Your task to perform on an android device: add a contact in the contacts app Image 0: 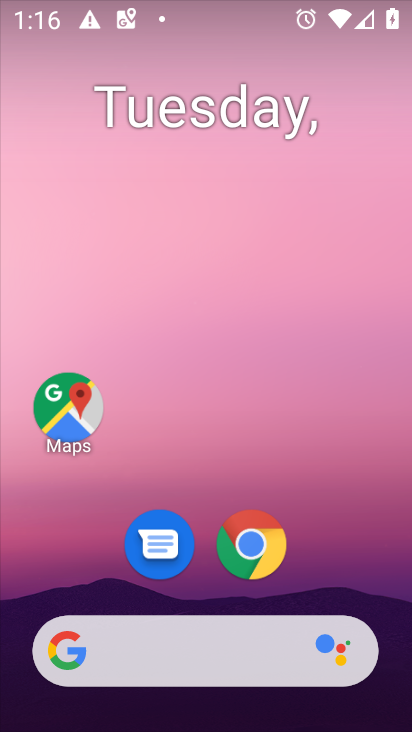
Step 0: drag from (351, 507) to (355, 18)
Your task to perform on an android device: add a contact in the contacts app Image 1: 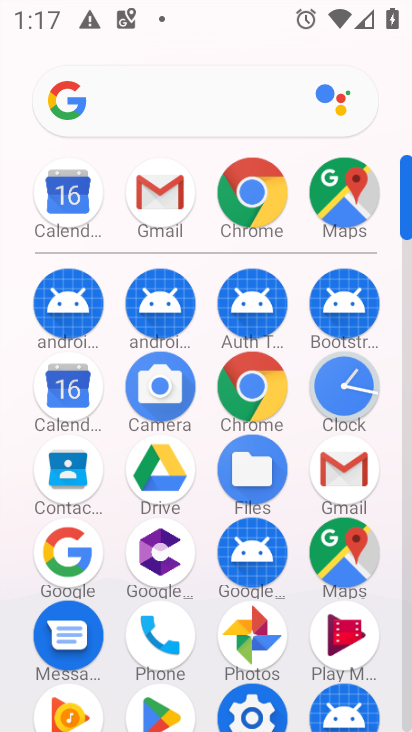
Step 1: click (82, 457)
Your task to perform on an android device: add a contact in the contacts app Image 2: 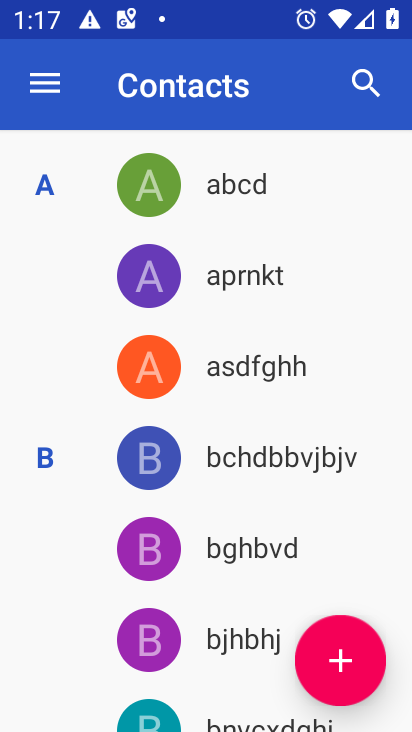
Step 2: click (341, 656)
Your task to perform on an android device: add a contact in the contacts app Image 3: 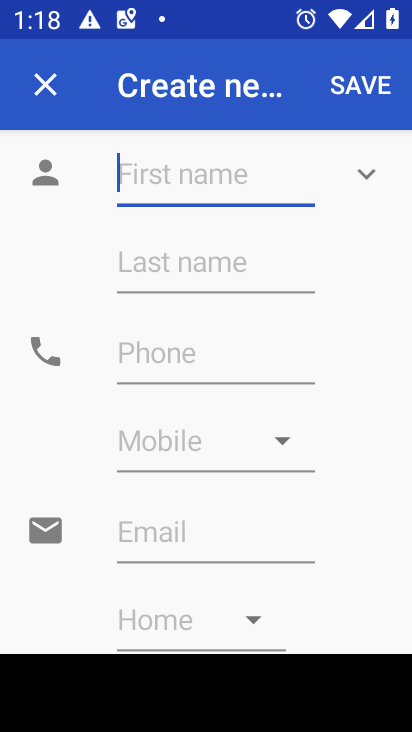
Step 3: type "golbl"
Your task to perform on an android device: add a contact in the contacts app Image 4: 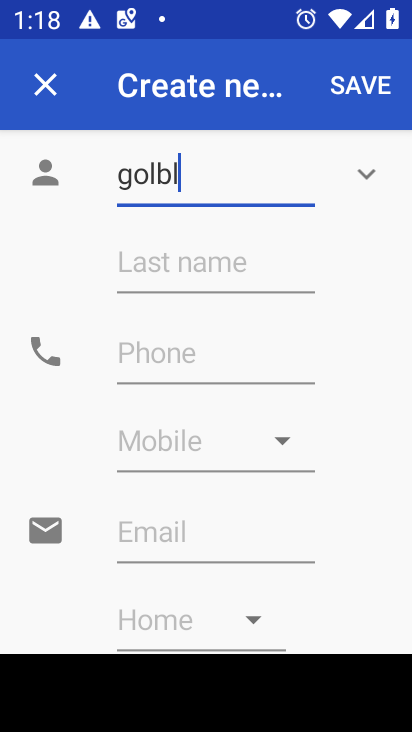
Step 4: click (379, 91)
Your task to perform on an android device: add a contact in the contacts app Image 5: 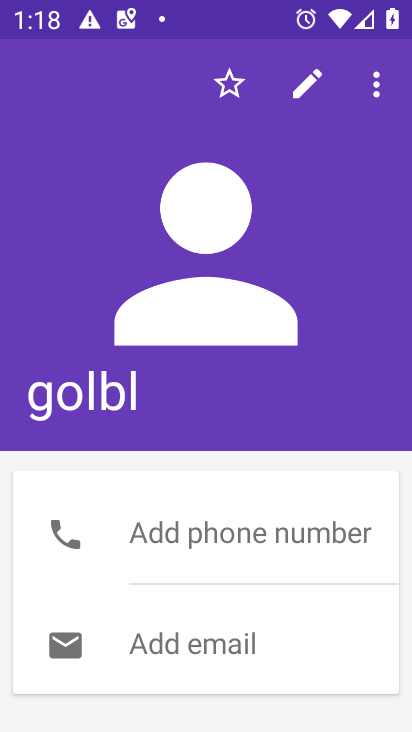
Step 5: task complete